Your task to perform on an android device: Open the map Image 0: 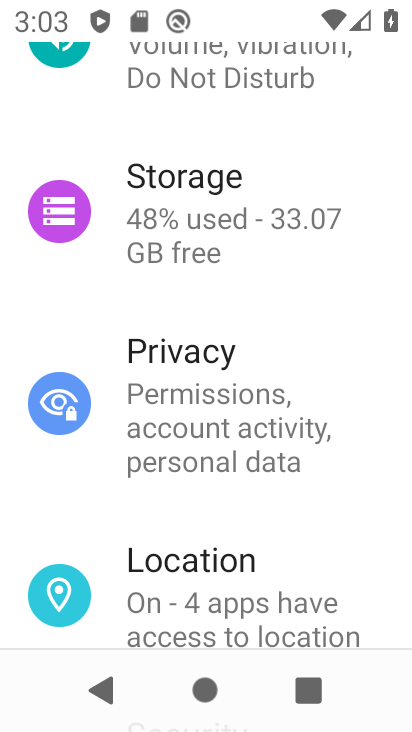
Step 0: press home button
Your task to perform on an android device: Open the map Image 1: 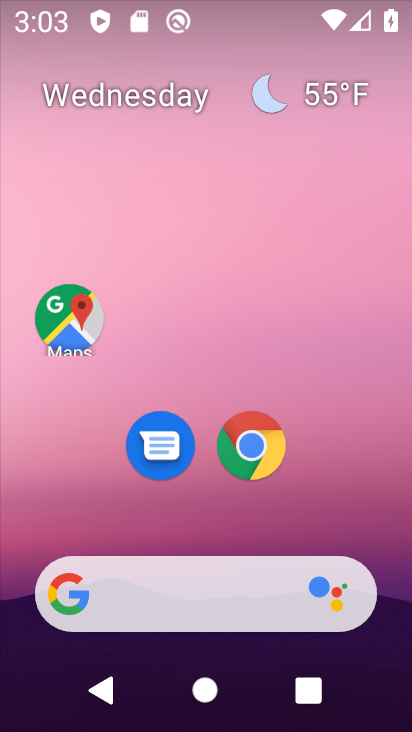
Step 1: click (74, 324)
Your task to perform on an android device: Open the map Image 2: 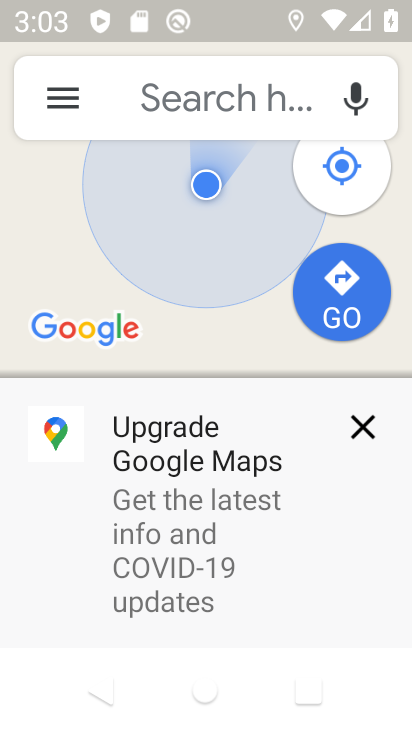
Step 2: task complete